Your task to perform on an android device: Open ESPN.com Image 0: 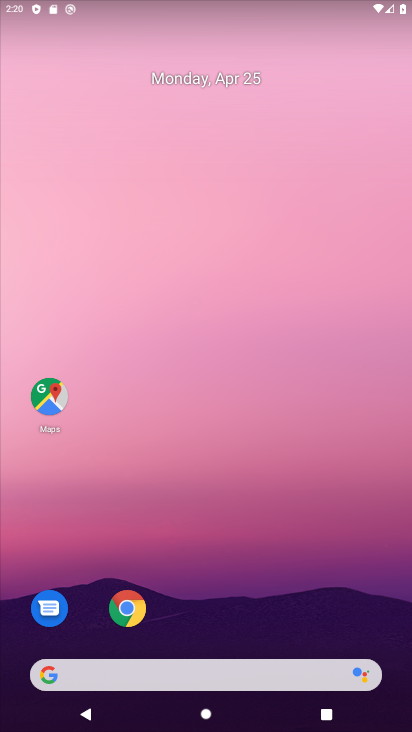
Step 0: drag from (339, 593) to (333, 148)
Your task to perform on an android device: Open ESPN.com Image 1: 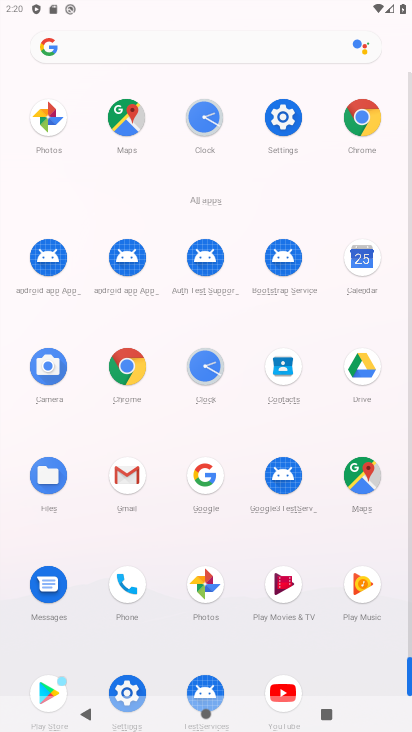
Step 1: click (362, 134)
Your task to perform on an android device: Open ESPN.com Image 2: 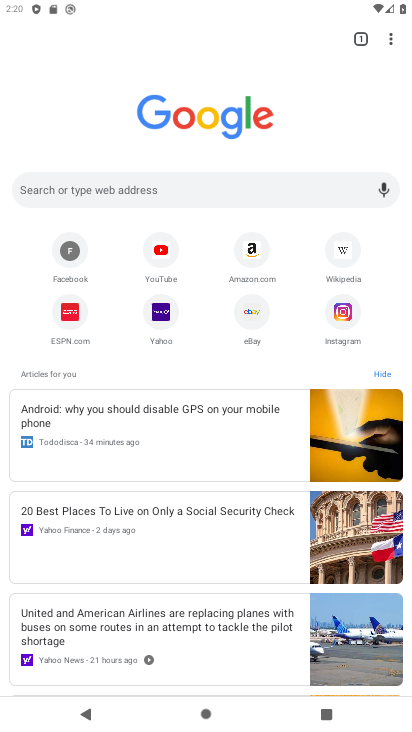
Step 2: click (76, 329)
Your task to perform on an android device: Open ESPN.com Image 3: 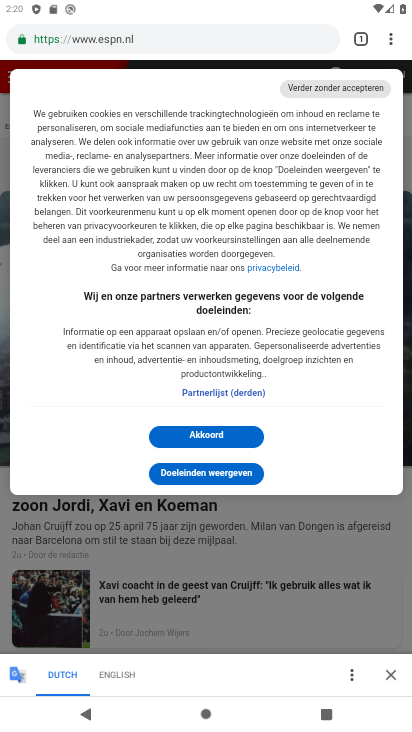
Step 3: task complete